Your task to perform on an android device: open app "Indeed Job Search" Image 0: 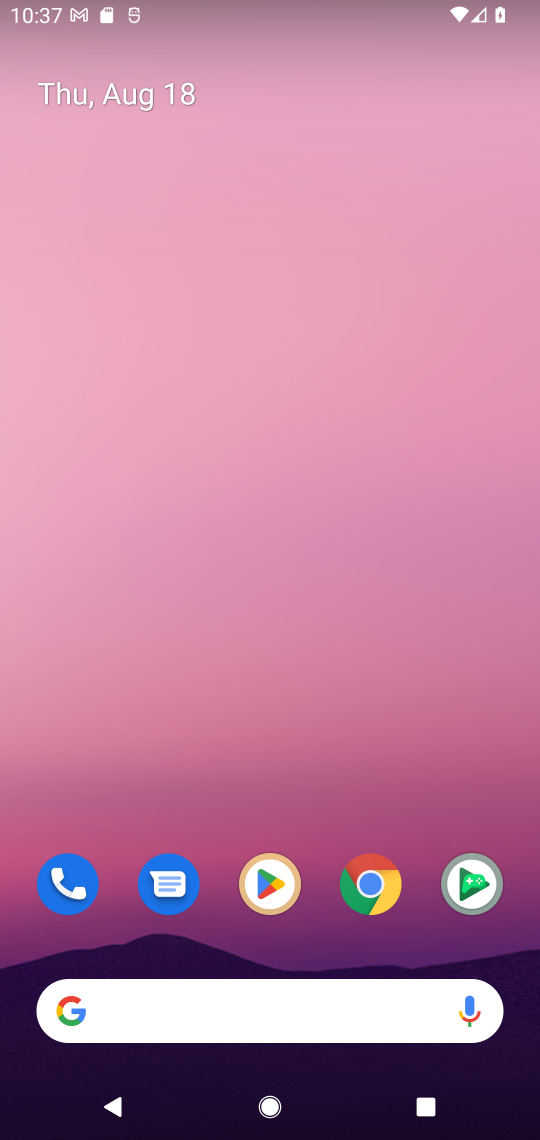
Step 0: drag from (189, 1024) to (368, 106)
Your task to perform on an android device: open app "Indeed Job Search" Image 1: 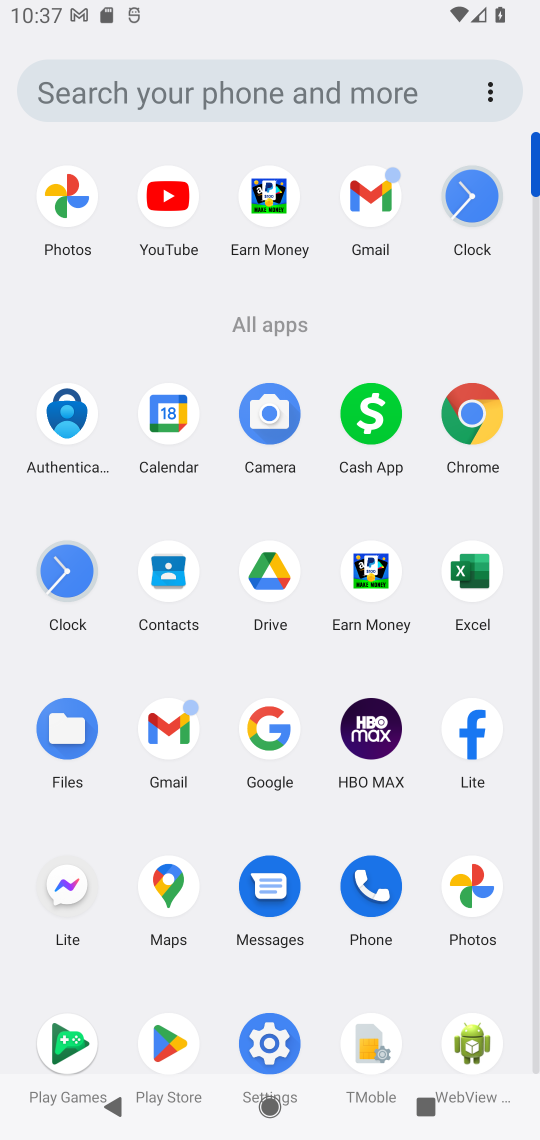
Step 1: click (174, 1042)
Your task to perform on an android device: open app "Indeed Job Search" Image 2: 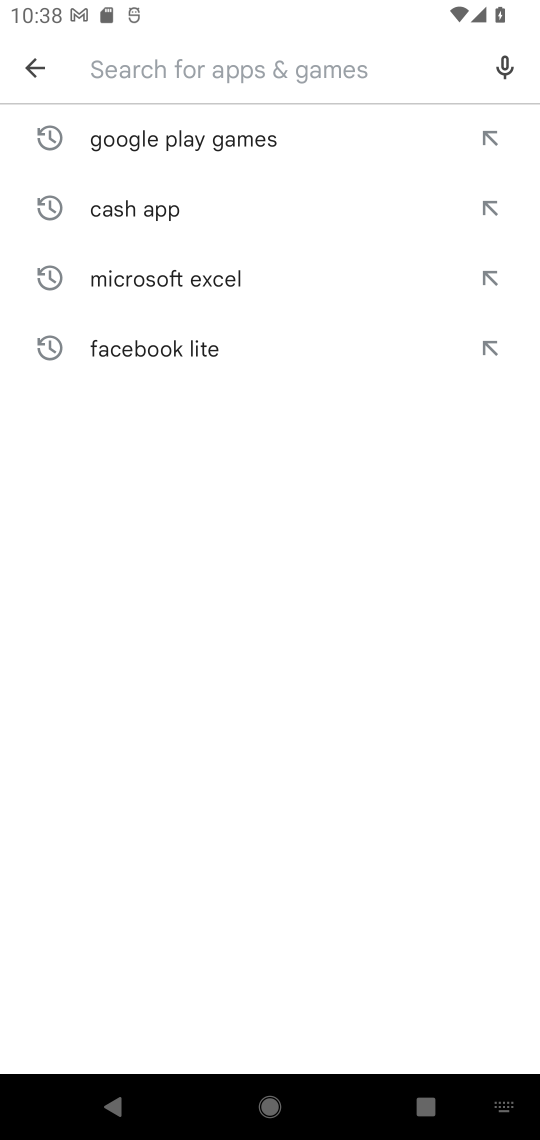
Step 2: type "Indeed Job Search"
Your task to perform on an android device: open app "Indeed Job Search" Image 3: 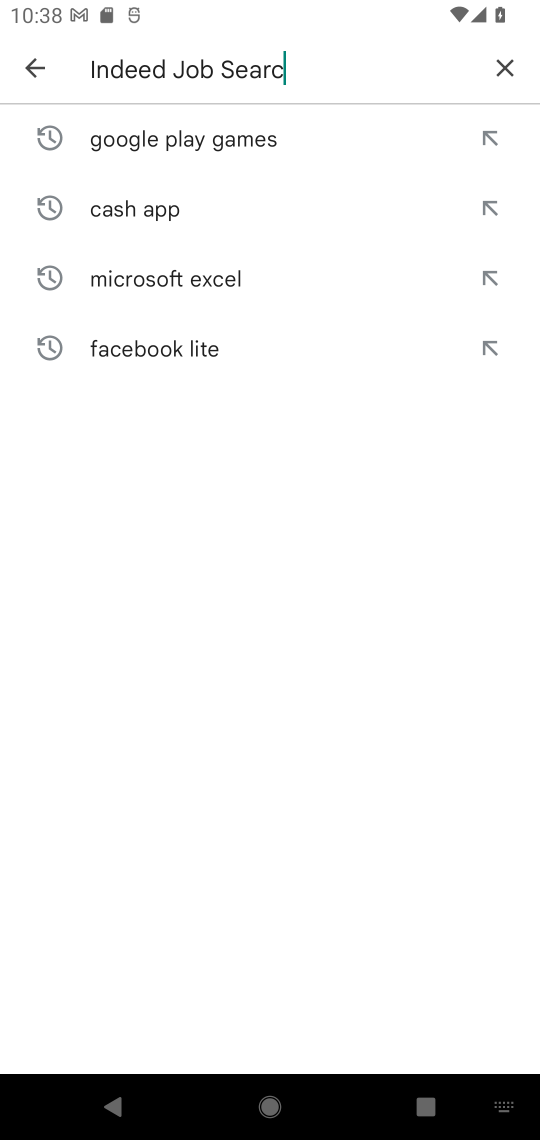
Step 3: type ""
Your task to perform on an android device: open app "Indeed Job Search" Image 4: 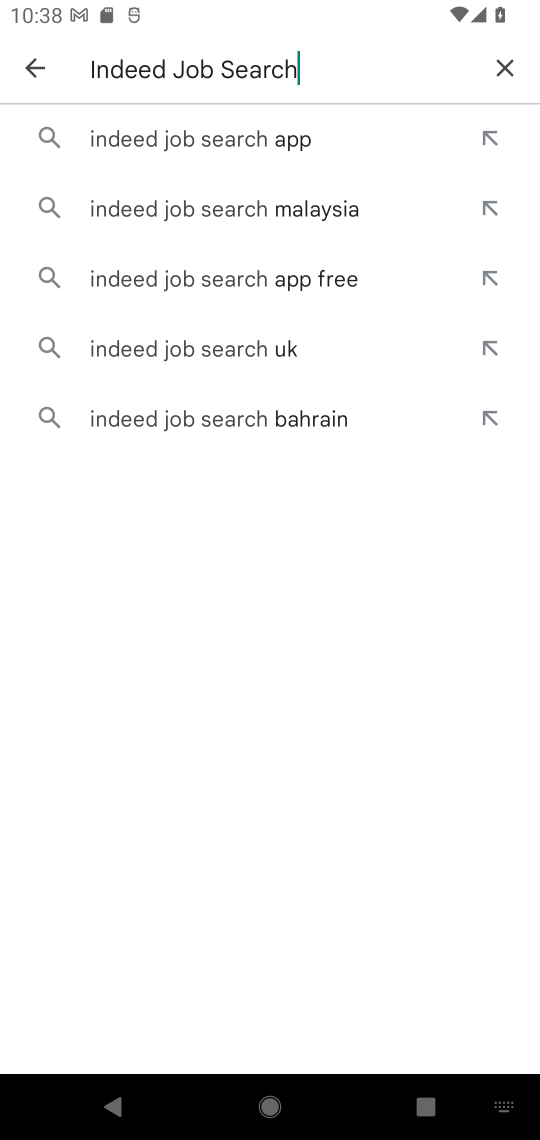
Step 4: click (221, 147)
Your task to perform on an android device: open app "Indeed Job Search" Image 5: 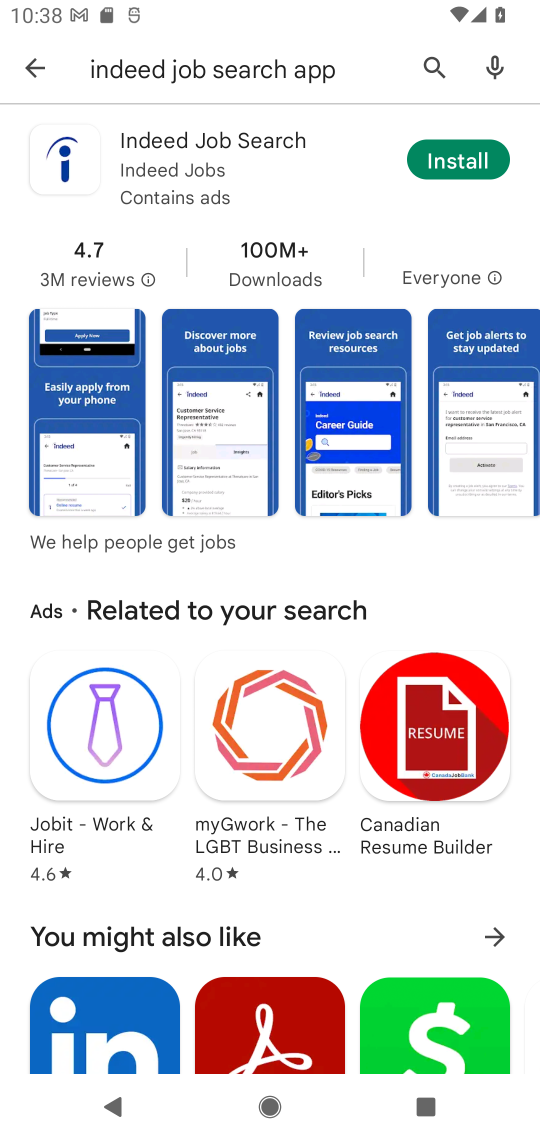
Step 5: task complete